Your task to perform on an android device: Open wifi settings Image 0: 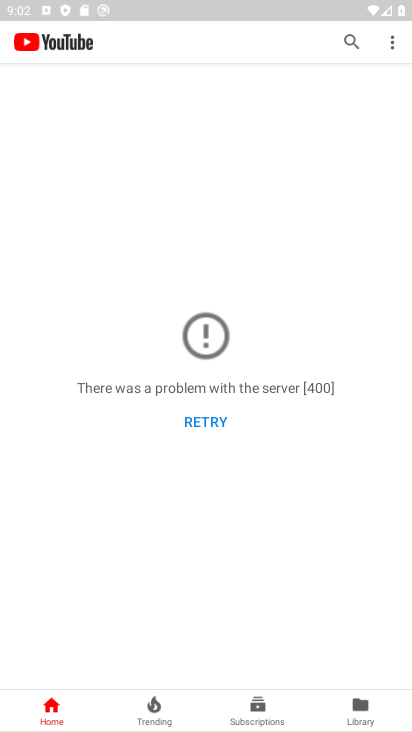
Step 0: press home button
Your task to perform on an android device: Open wifi settings Image 1: 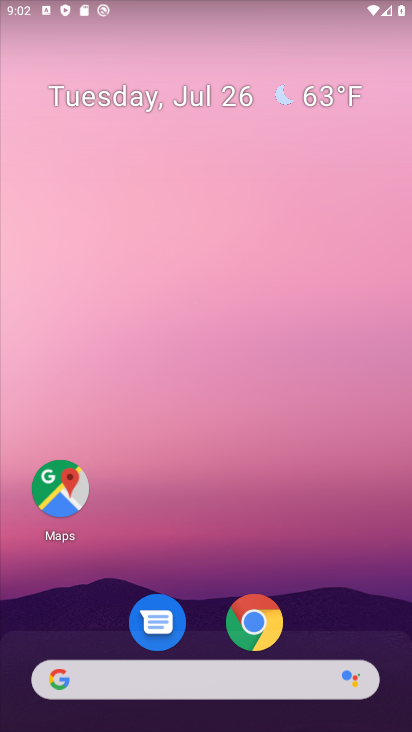
Step 1: drag from (318, 645) to (305, 112)
Your task to perform on an android device: Open wifi settings Image 2: 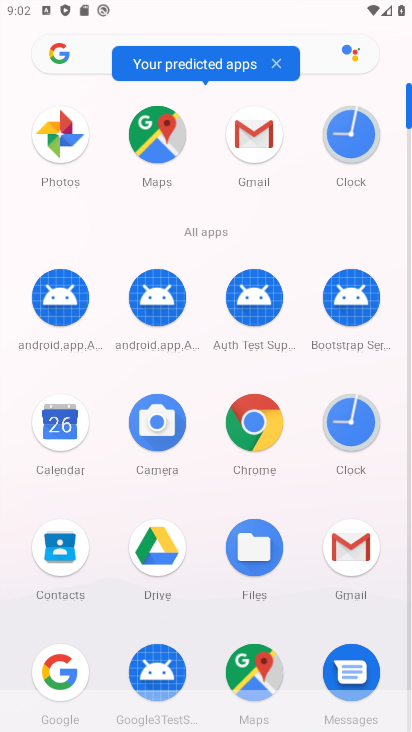
Step 2: drag from (195, 535) to (246, 98)
Your task to perform on an android device: Open wifi settings Image 3: 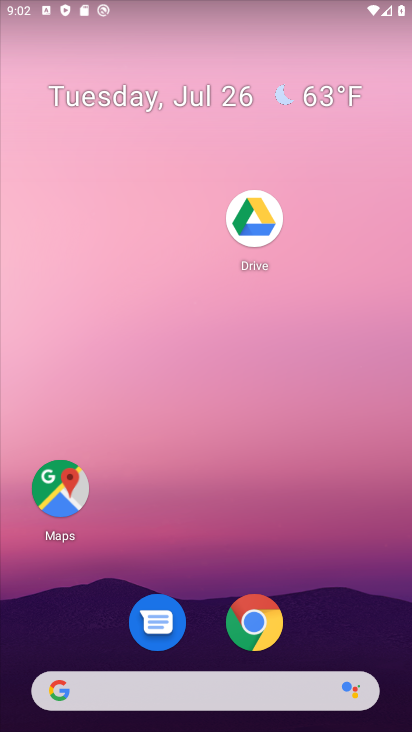
Step 3: drag from (340, 614) to (376, 143)
Your task to perform on an android device: Open wifi settings Image 4: 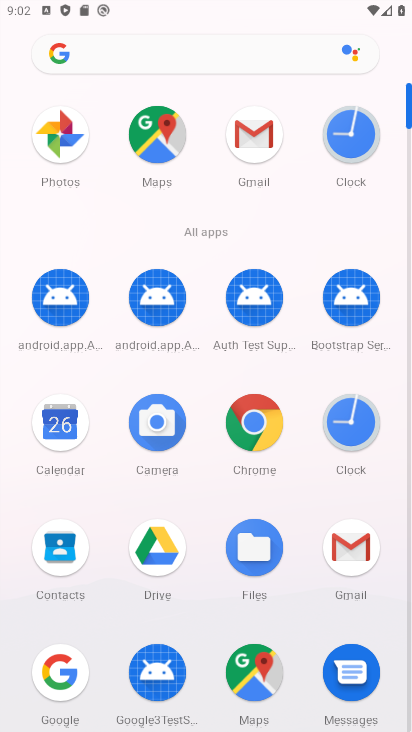
Step 4: drag from (204, 621) to (213, 243)
Your task to perform on an android device: Open wifi settings Image 5: 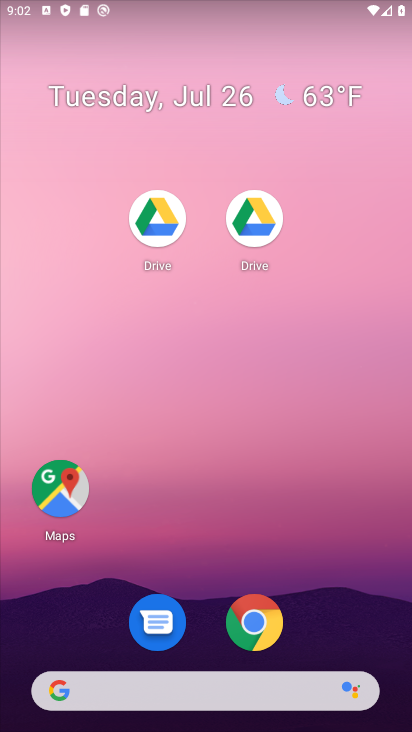
Step 5: drag from (355, 659) to (345, 10)
Your task to perform on an android device: Open wifi settings Image 6: 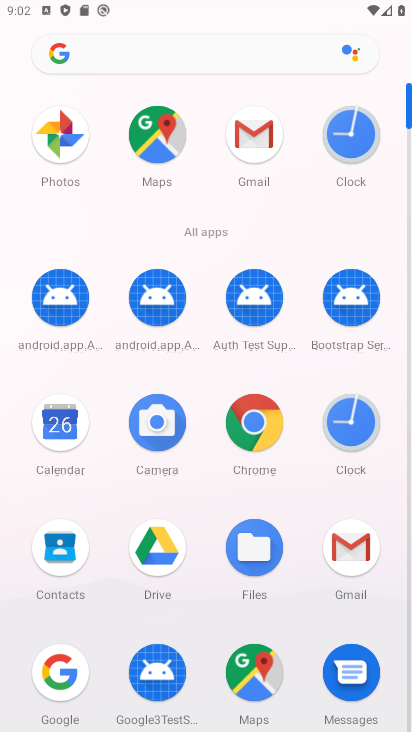
Step 6: drag from (314, 612) to (303, 271)
Your task to perform on an android device: Open wifi settings Image 7: 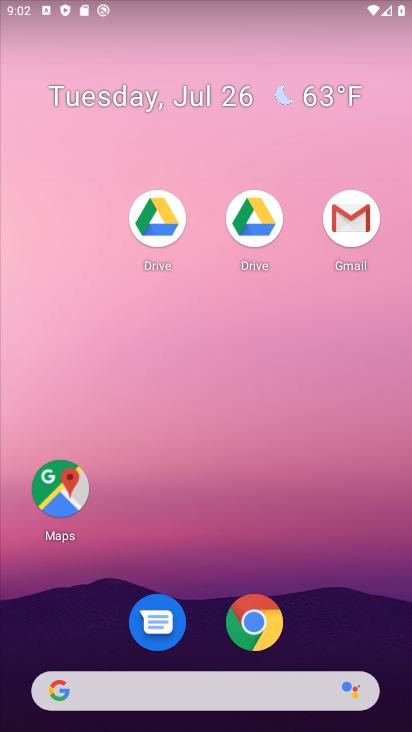
Step 7: drag from (319, 567) to (258, 22)
Your task to perform on an android device: Open wifi settings Image 8: 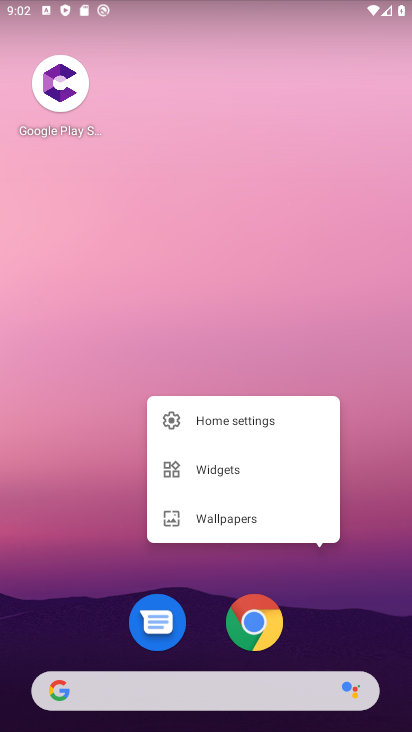
Step 8: click (247, 425)
Your task to perform on an android device: Open wifi settings Image 9: 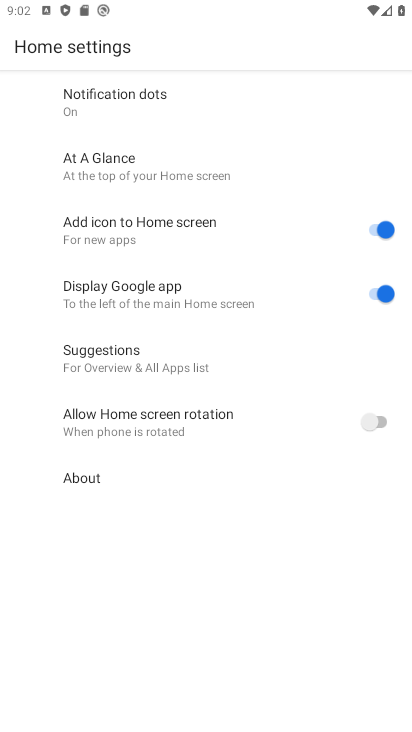
Step 9: task complete